Your task to perform on an android device: add a contact in the contacts app Image 0: 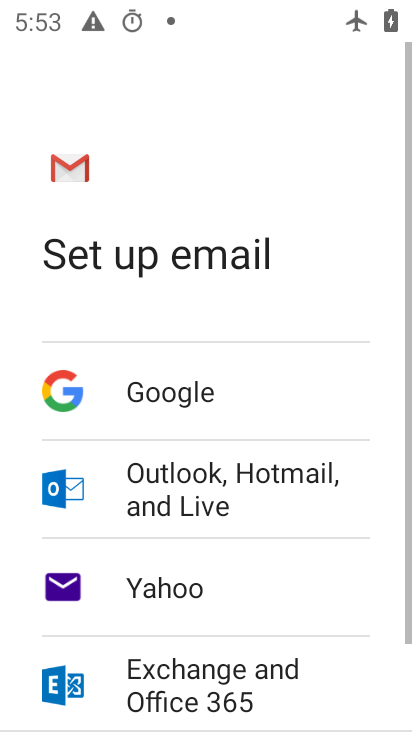
Step 0: press home button
Your task to perform on an android device: add a contact in the contacts app Image 1: 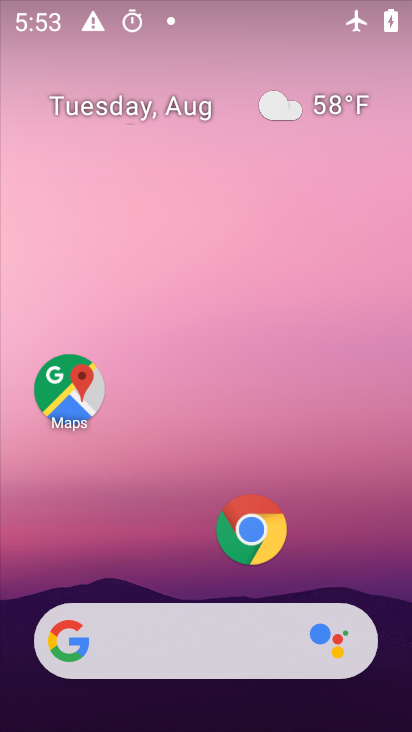
Step 1: drag from (179, 506) to (174, 145)
Your task to perform on an android device: add a contact in the contacts app Image 2: 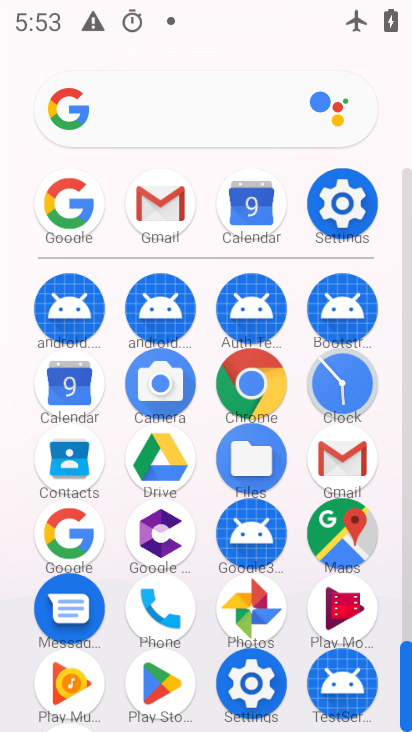
Step 2: click (57, 450)
Your task to perform on an android device: add a contact in the contacts app Image 3: 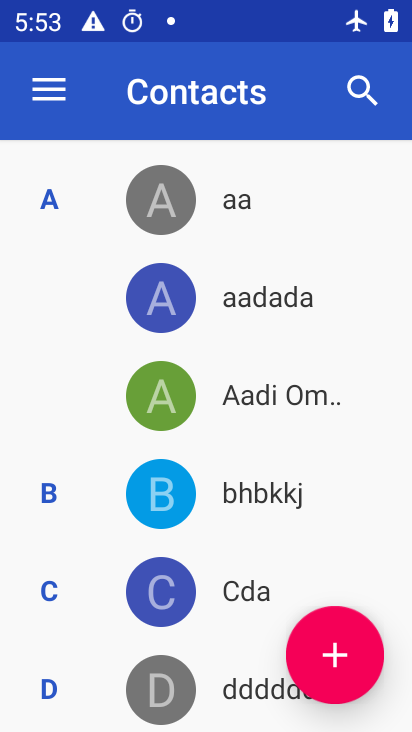
Step 3: click (345, 630)
Your task to perform on an android device: add a contact in the contacts app Image 4: 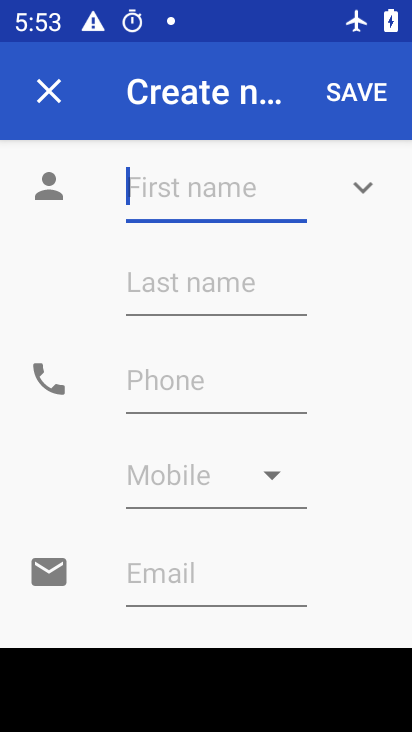
Step 4: type "xbx"
Your task to perform on an android device: add a contact in the contacts app Image 5: 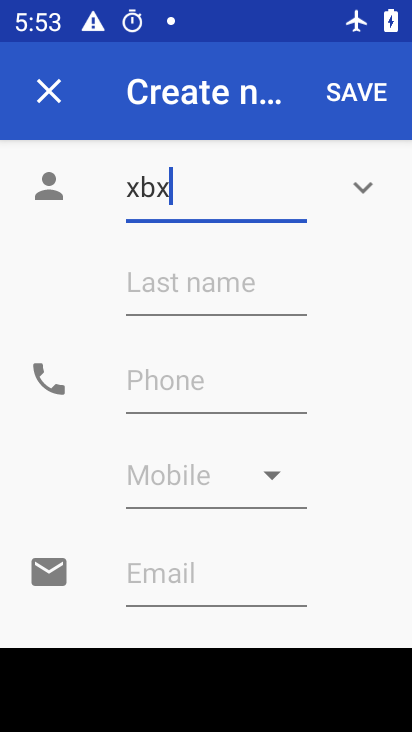
Step 5: type ""
Your task to perform on an android device: add a contact in the contacts app Image 6: 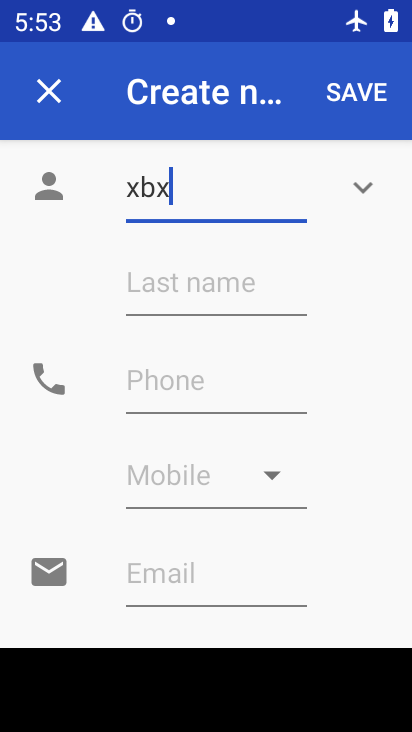
Step 6: click (169, 384)
Your task to perform on an android device: add a contact in the contacts app Image 7: 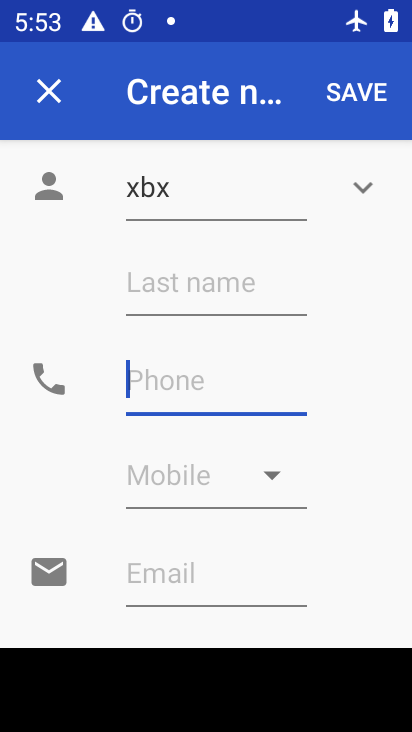
Step 7: type "86658575776"
Your task to perform on an android device: add a contact in the contacts app Image 8: 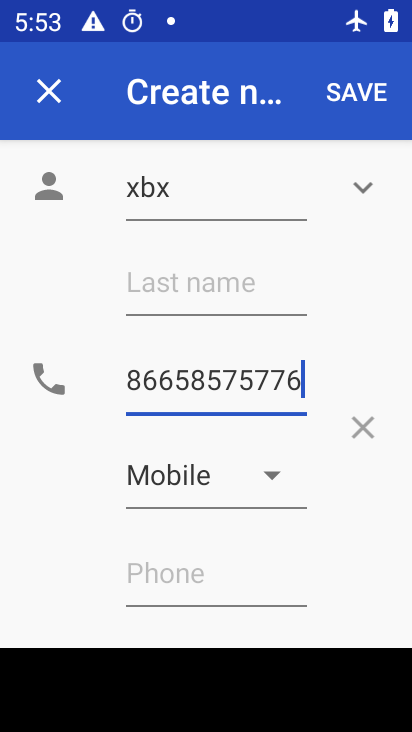
Step 8: click (363, 99)
Your task to perform on an android device: add a contact in the contacts app Image 9: 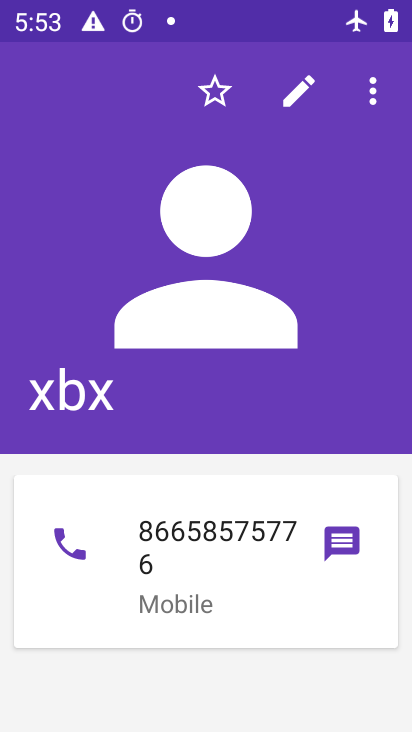
Step 9: task complete